Your task to perform on an android device: search for starred emails in the gmail app Image 0: 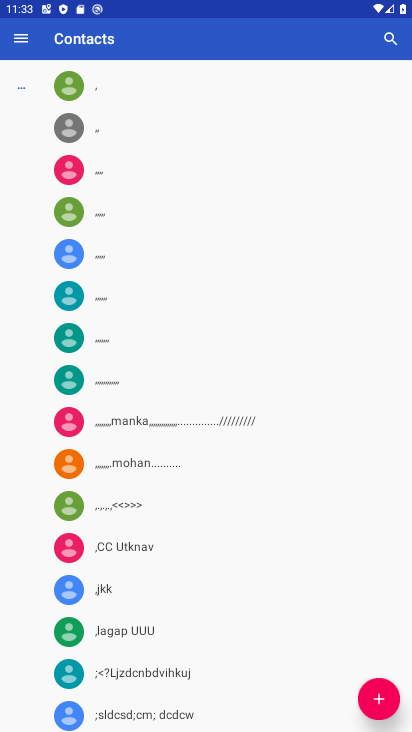
Step 0: press home button
Your task to perform on an android device: search for starred emails in the gmail app Image 1: 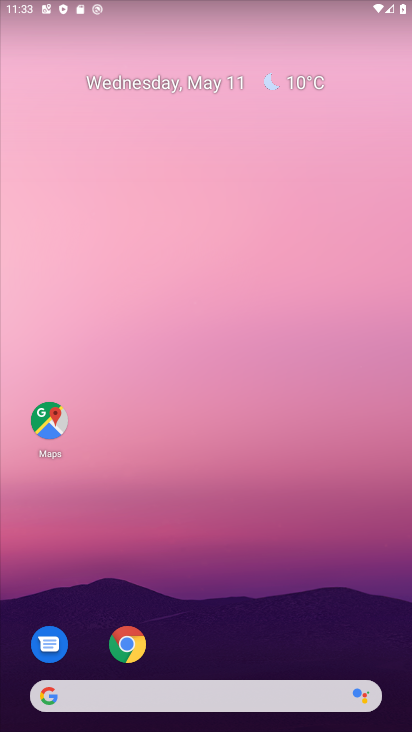
Step 1: drag from (270, 605) to (156, 5)
Your task to perform on an android device: search for starred emails in the gmail app Image 2: 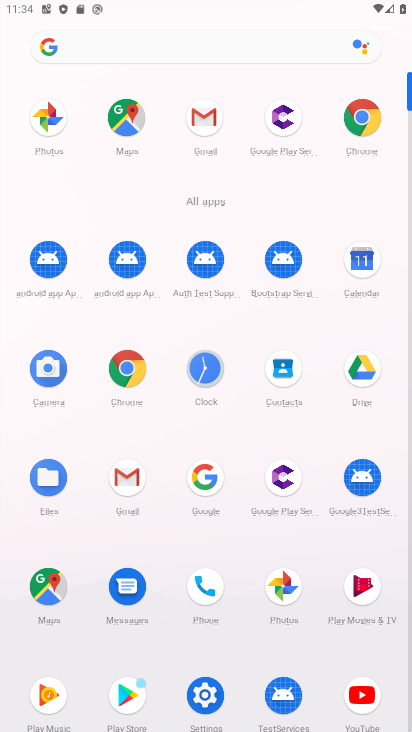
Step 2: click (119, 488)
Your task to perform on an android device: search for starred emails in the gmail app Image 3: 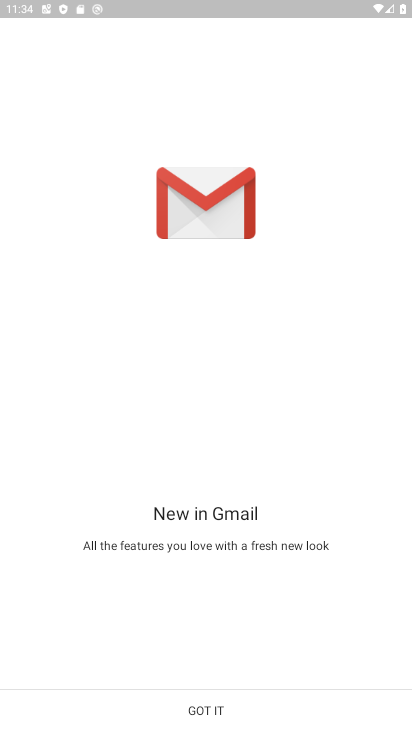
Step 3: click (190, 682)
Your task to perform on an android device: search for starred emails in the gmail app Image 4: 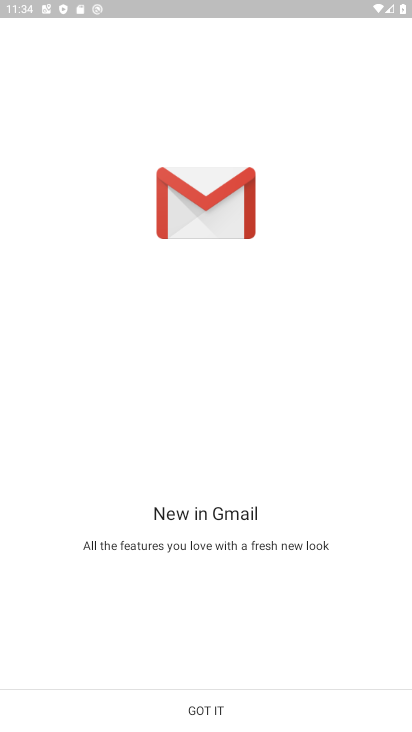
Step 4: click (200, 719)
Your task to perform on an android device: search for starred emails in the gmail app Image 5: 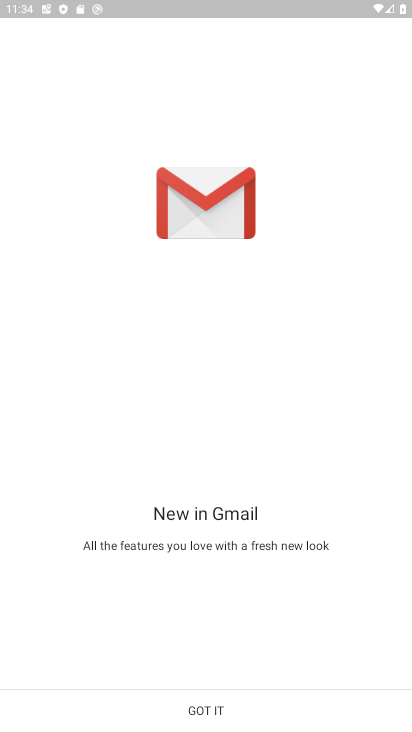
Step 5: click (200, 719)
Your task to perform on an android device: search for starred emails in the gmail app Image 6: 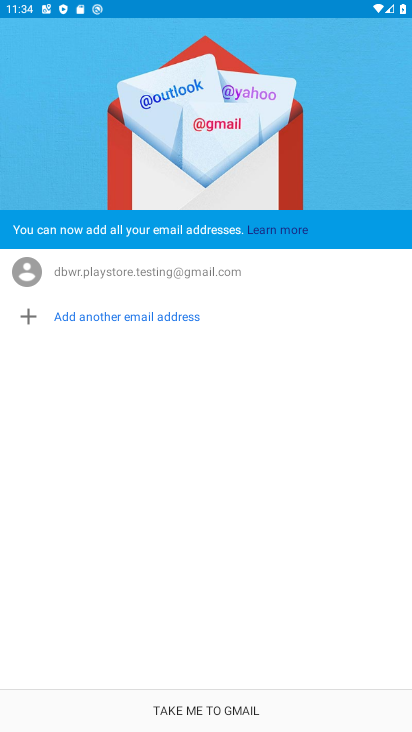
Step 6: click (210, 713)
Your task to perform on an android device: search for starred emails in the gmail app Image 7: 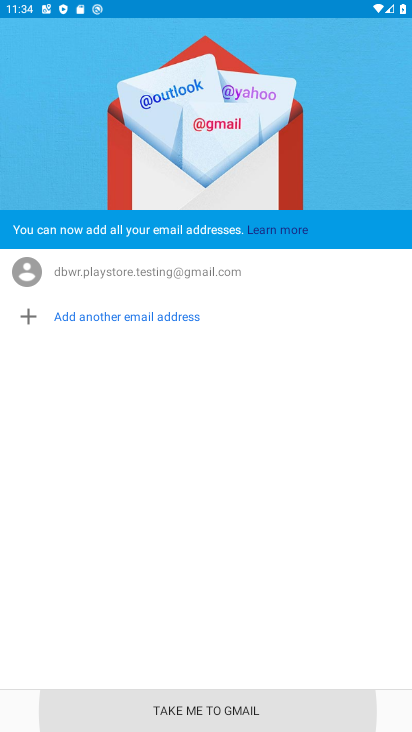
Step 7: click (210, 713)
Your task to perform on an android device: search for starred emails in the gmail app Image 8: 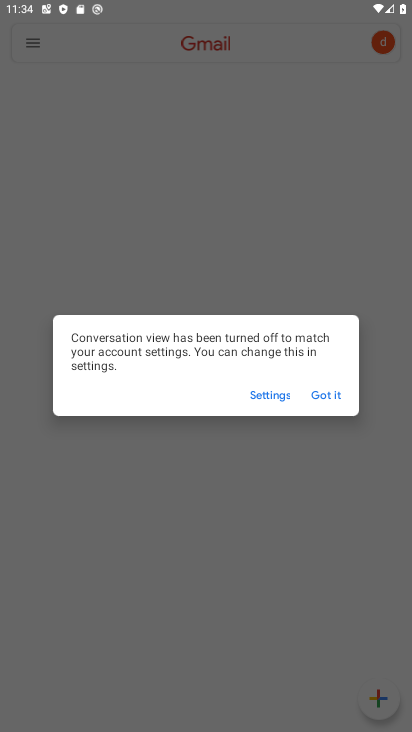
Step 8: click (329, 398)
Your task to perform on an android device: search for starred emails in the gmail app Image 9: 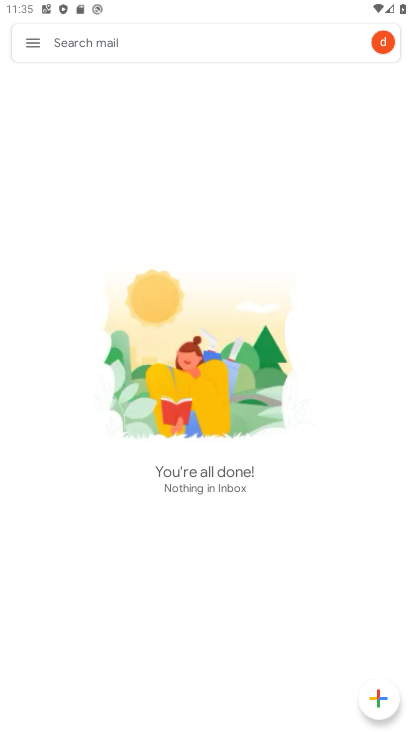
Step 9: click (33, 54)
Your task to perform on an android device: search for starred emails in the gmail app Image 10: 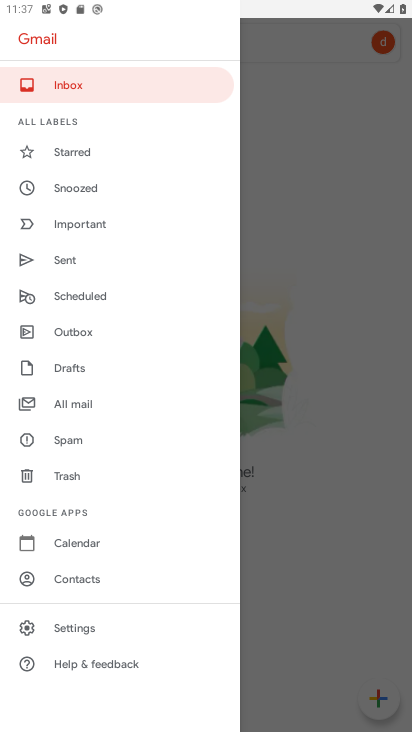
Step 10: click (63, 149)
Your task to perform on an android device: search for starred emails in the gmail app Image 11: 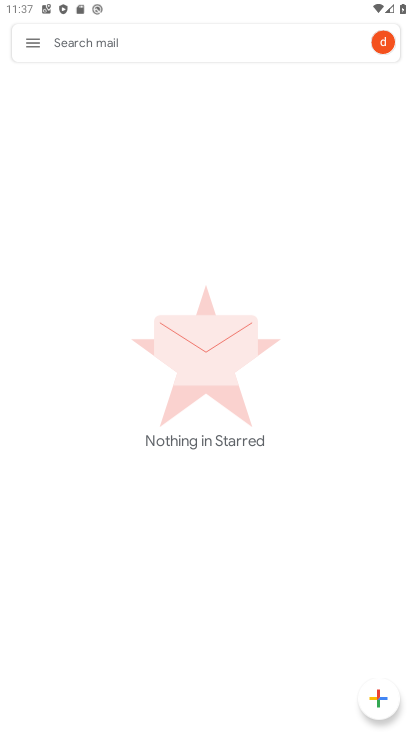
Step 11: task complete